Your task to perform on an android device: turn vacation reply on in the gmail app Image 0: 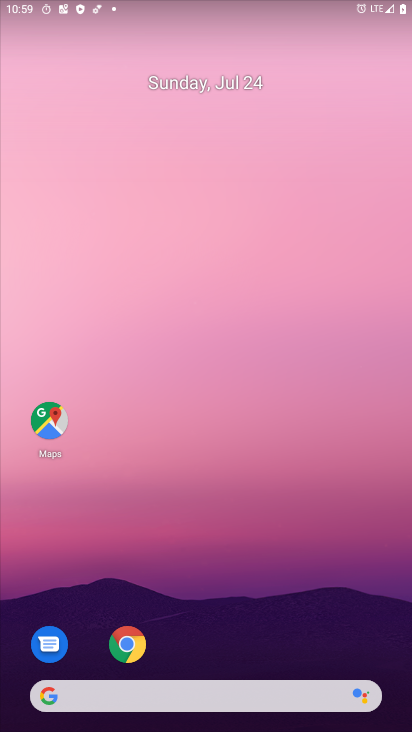
Step 0: drag from (251, 679) to (293, 125)
Your task to perform on an android device: turn vacation reply on in the gmail app Image 1: 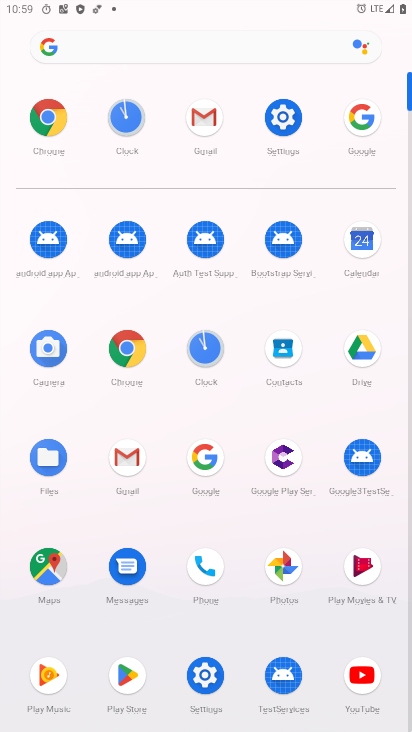
Step 1: click (203, 123)
Your task to perform on an android device: turn vacation reply on in the gmail app Image 2: 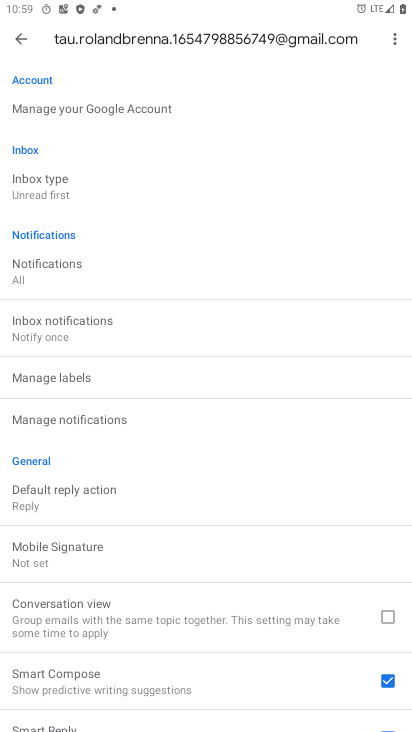
Step 2: drag from (104, 721) to (143, 374)
Your task to perform on an android device: turn vacation reply on in the gmail app Image 3: 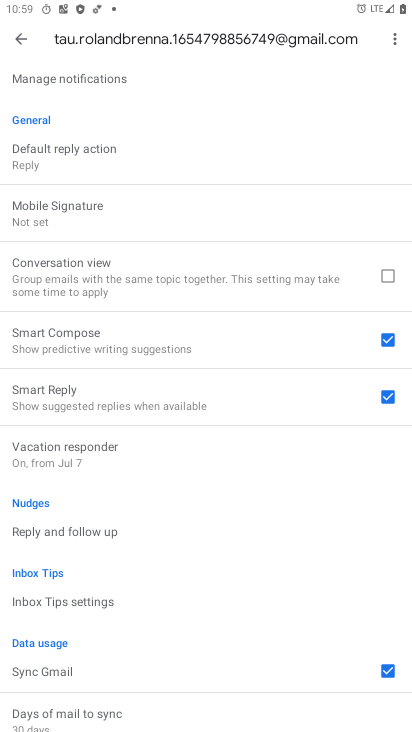
Step 3: click (50, 454)
Your task to perform on an android device: turn vacation reply on in the gmail app Image 4: 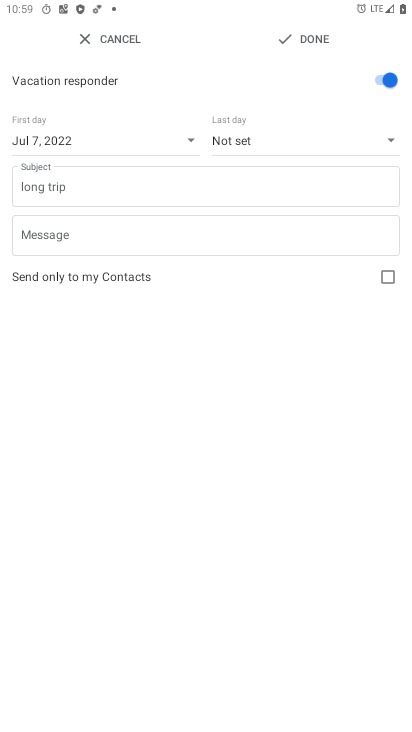
Step 4: task complete